Your task to perform on an android device: Open Google Maps and go to "Timeline" Image 0: 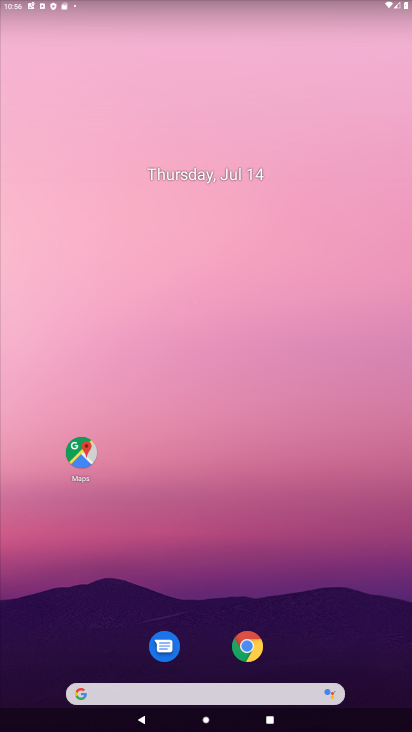
Step 0: click (69, 464)
Your task to perform on an android device: Open Google Maps and go to "Timeline" Image 1: 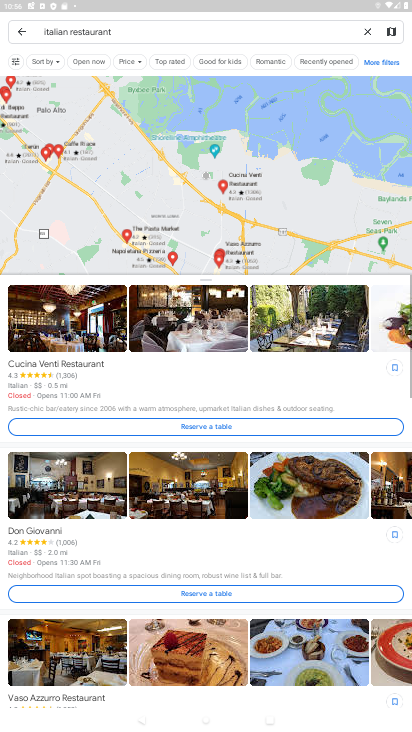
Step 1: click (18, 34)
Your task to perform on an android device: Open Google Maps and go to "Timeline" Image 2: 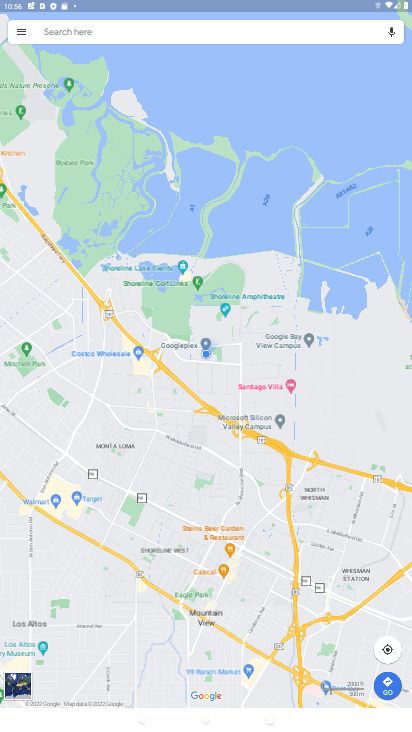
Step 2: click (18, 34)
Your task to perform on an android device: Open Google Maps and go to "Timeline" Image 3: 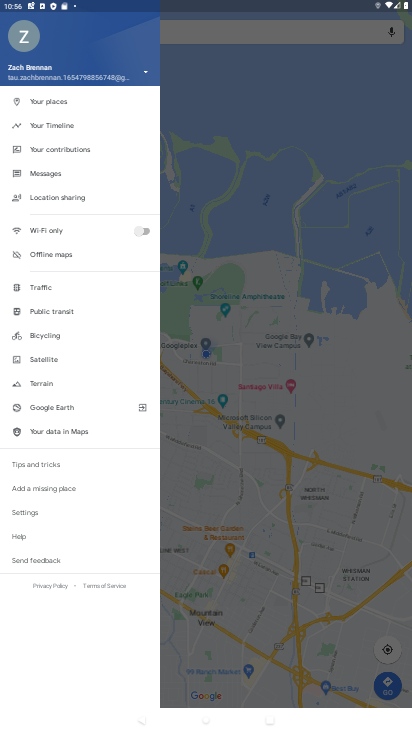
Step 3: click (18, 34)
Your task to perform on an android device: Open Google Maps and go to "Timeline" Image 4: 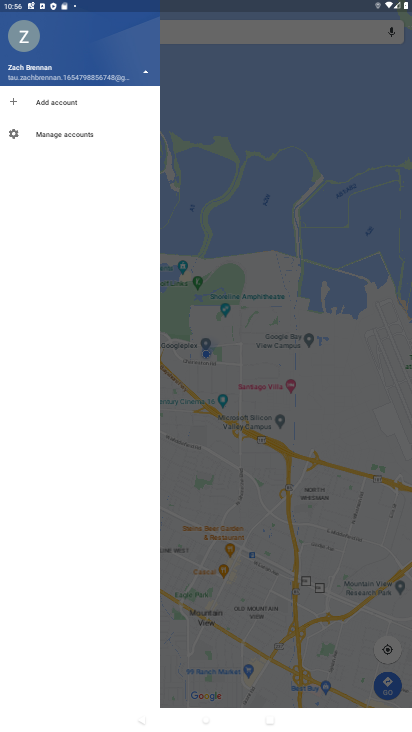
Step 4: press back button
Your task to perform on an android device: Open Google Maps and go to "Timeline" Image 5: 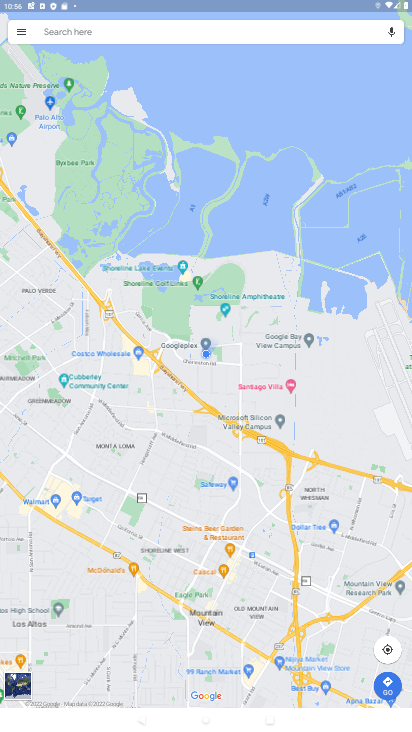
Step 5: click (18, 39)
Your task to perform on an android device: Open Google Maps and go to "Timeline" Image 6: 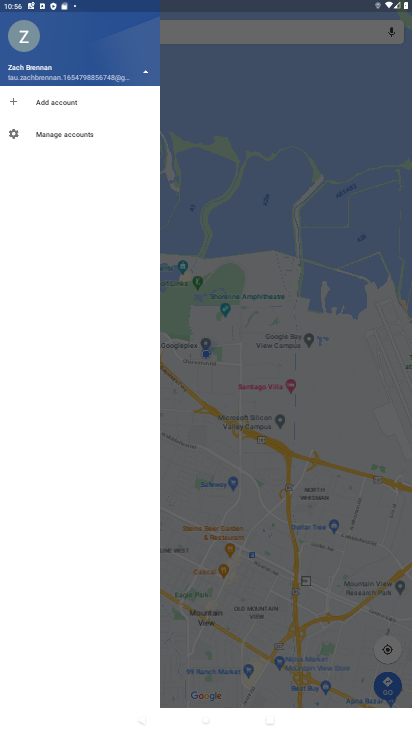
Step 6: click (15, 43)
Your task to perform on an android device: Open Google Maps and go to "Timeline" Image 7: 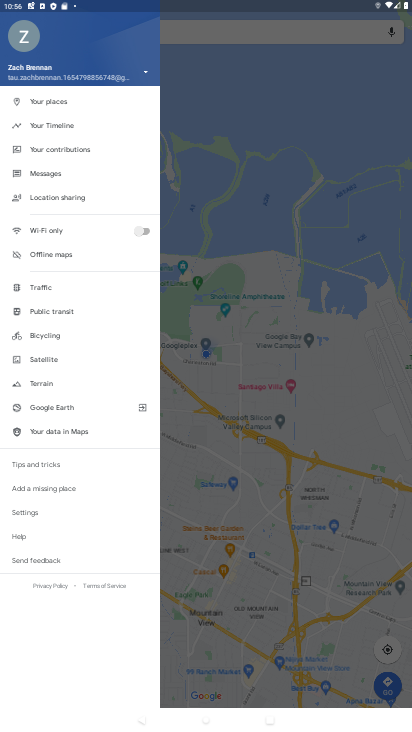
Step 7: drag from (47, 267) to (49, 109)
Your task to perform on an android device: Open Google Maps and go to "Timeline" Image 8: 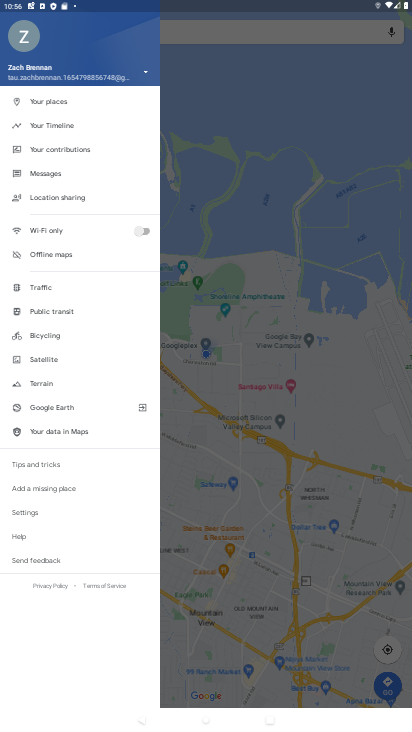
Step 8: click (45, 127)
Your task to perform on an android device: Open Google Maps and go to "Timeline" Image 9: 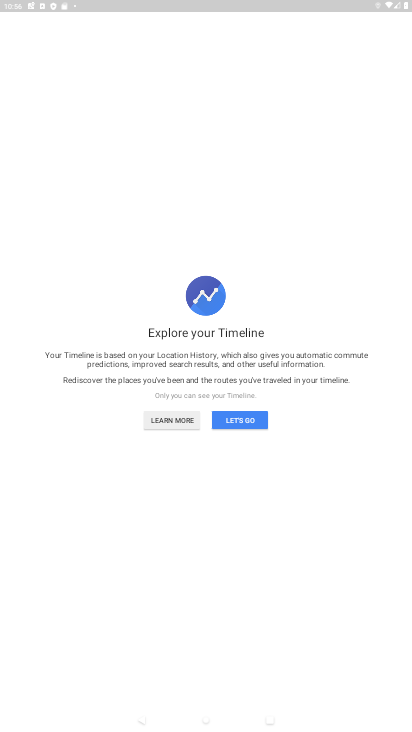
Step 9: click (249, 421)
Your task to perform on an android device: Open Google Maps and go to "Timeline" Image 10: 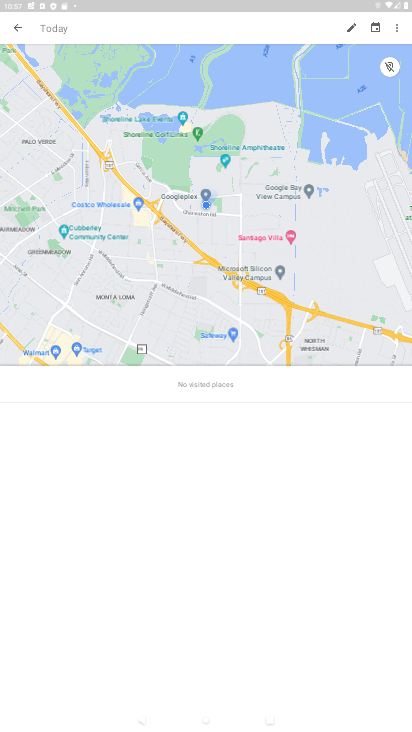
Step 10: task complete